Your task to perform on an android device: Open Amazon Image 0: 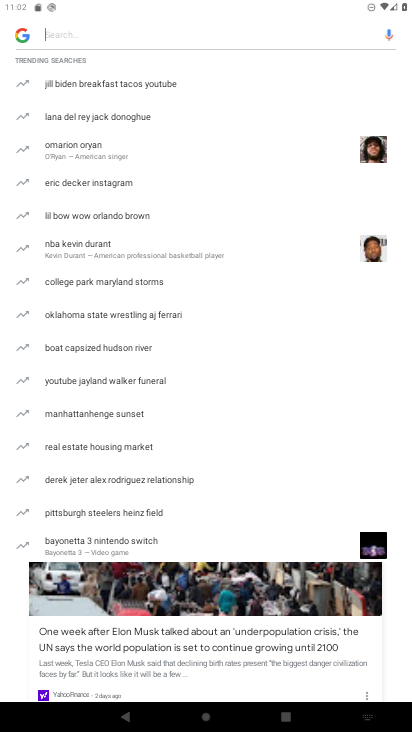
Step 0: press back button
Your task to perform on an android device: Open Amazon Image 1: 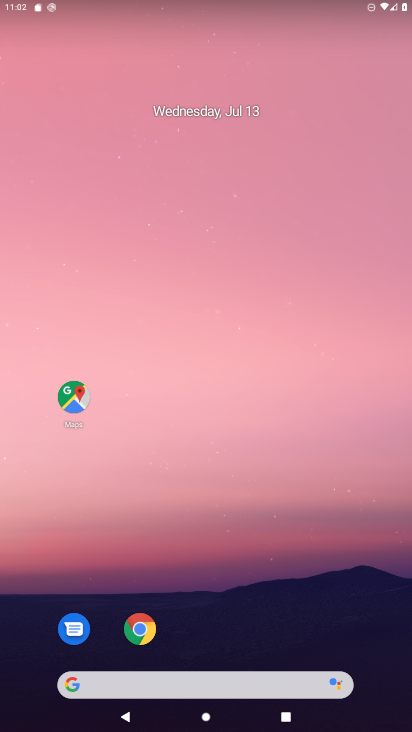
Step 1: drag from (381, 675) to (336, 167)
Your task to perform on an android device: Open Amazon Image 2: 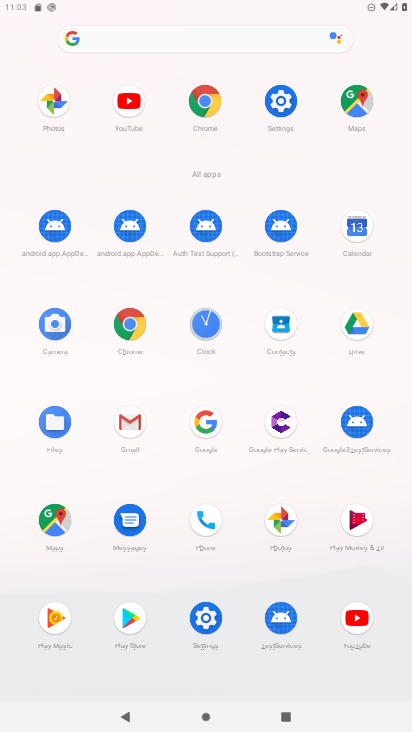
Step 2: click (133, 334)
Your task to perform on an android device: Open Amazon Image 3: 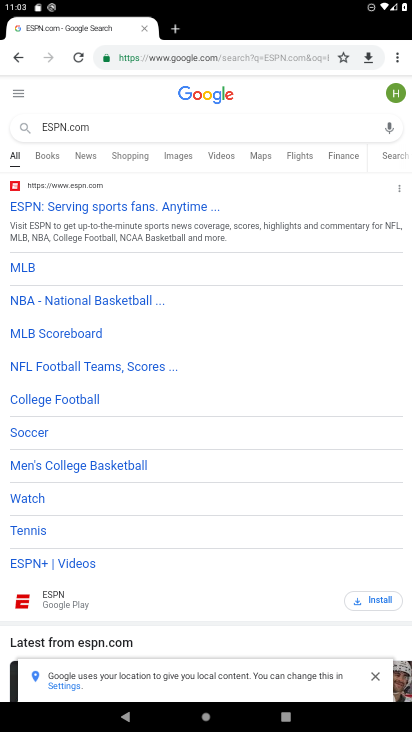
Step 3: click (313, 56)
Your task to perform on an android device: Open Amazon Image 4: 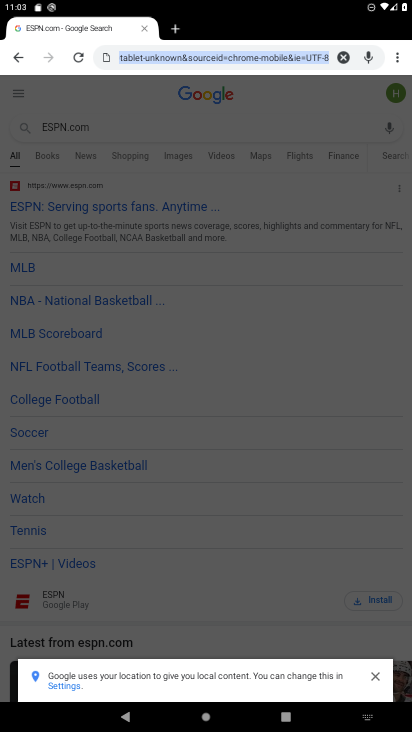
Step 4: click (344, 59)
Your task to perform on an android device: Open Amazon Image 5: 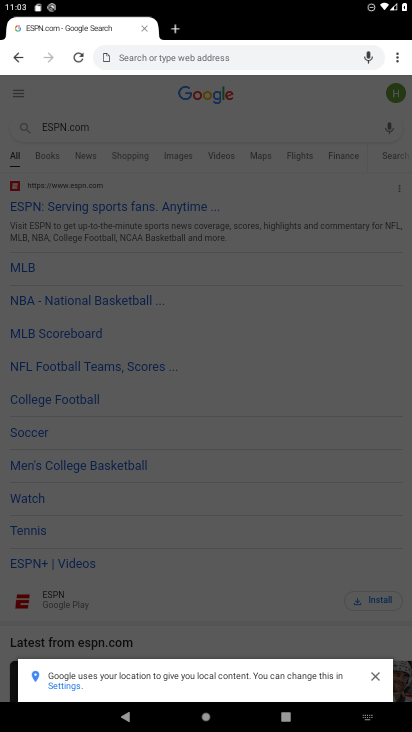
Step 5: type "Amazon"
Your task to perform on an android device: Open Amazon Image 6: 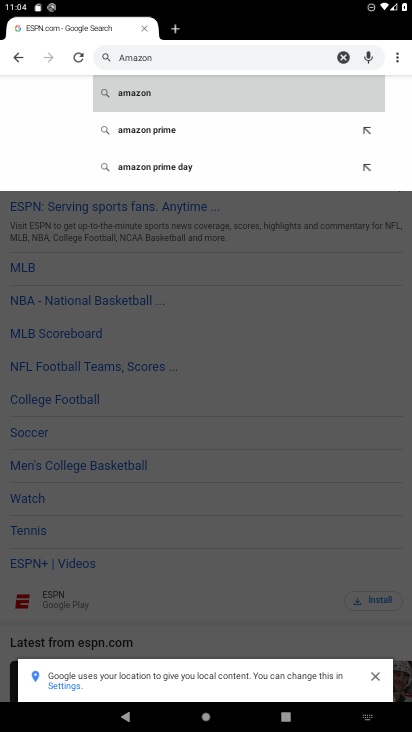
Step 6: click (128, 94)
Your task to perform on an android device: Open Amazon Image 7: 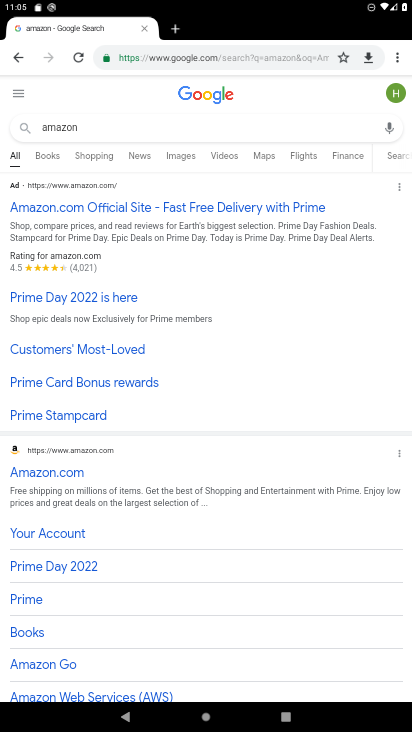
Step 7: task complete